Your task to perform on an android device: Open Google Image 0: 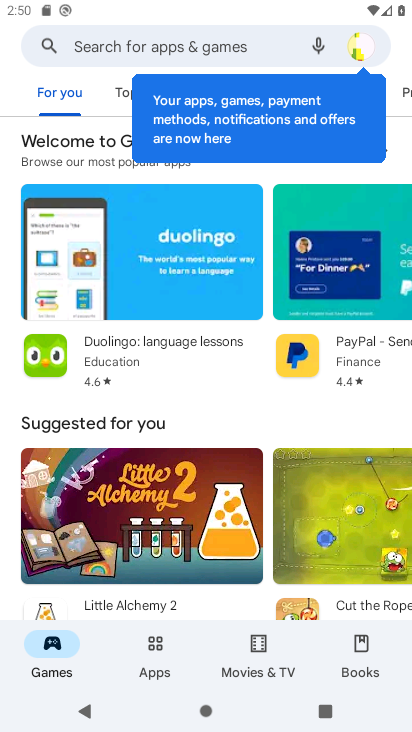
Step 0: press home button
Your task to perform on an android device: Open Google Image 1: 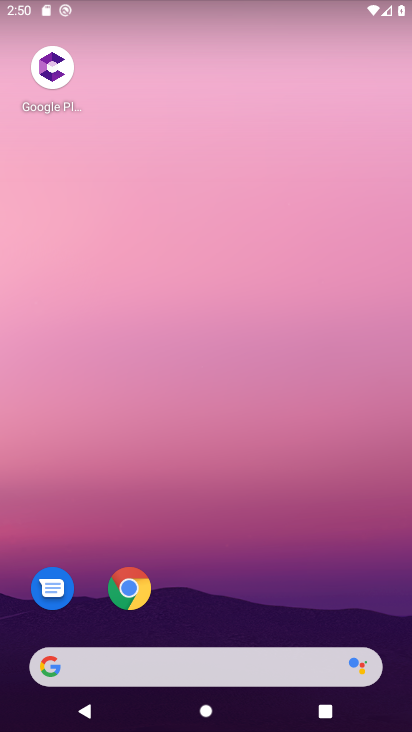
Step 1: drag from (294, 556) to (149, 133)
Your task to perform on an android device: Open Google Image 2: 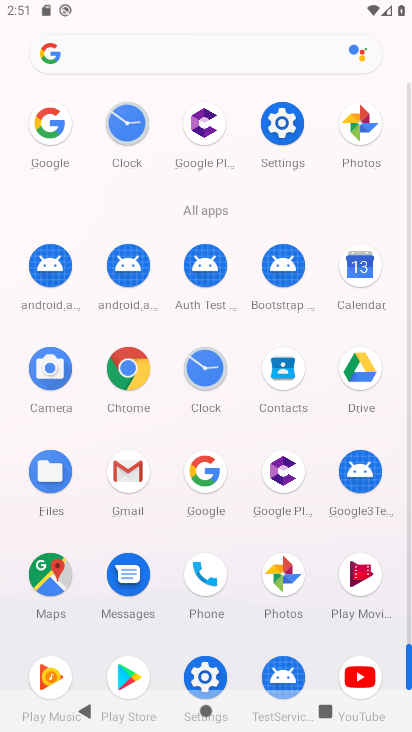
Step 2: click (197, 481)
Your task to perform on an android device: Open Google Image 3: 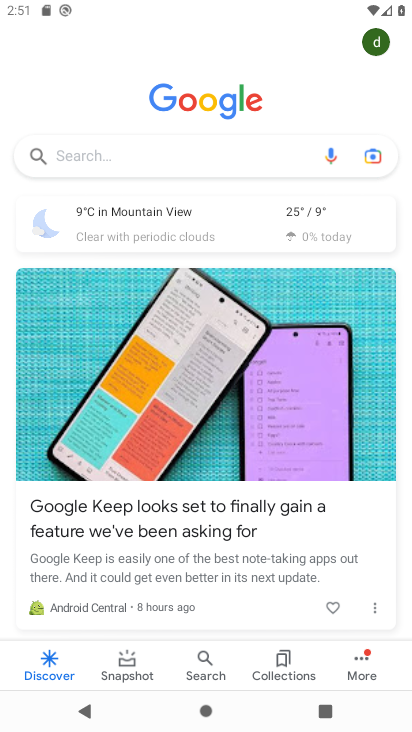
Step 3: task complete